Your task to perform on an android device: snooze an email in the gmail app Image 0: 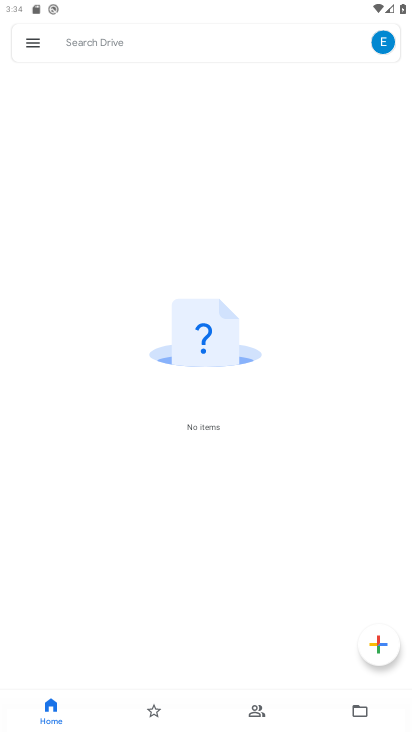
Step 0: press home button
Your task to perform on an android device: snooze an email in the gmail app Image 1: 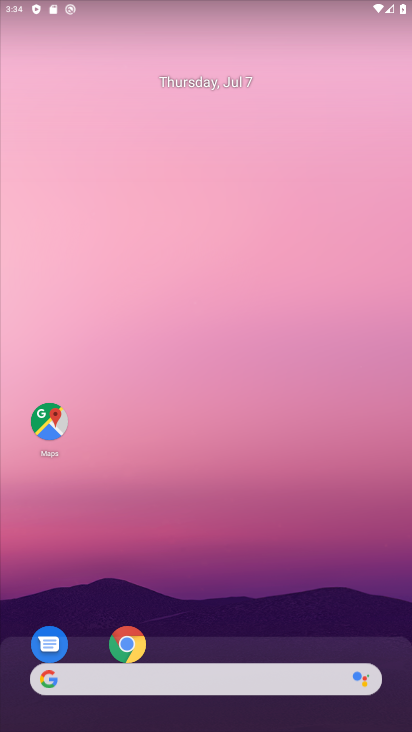
Step 1: drag from (281, 438) to (314, 271)
Your task to perform on an android device: snooze an email in the gmail app Image 2: 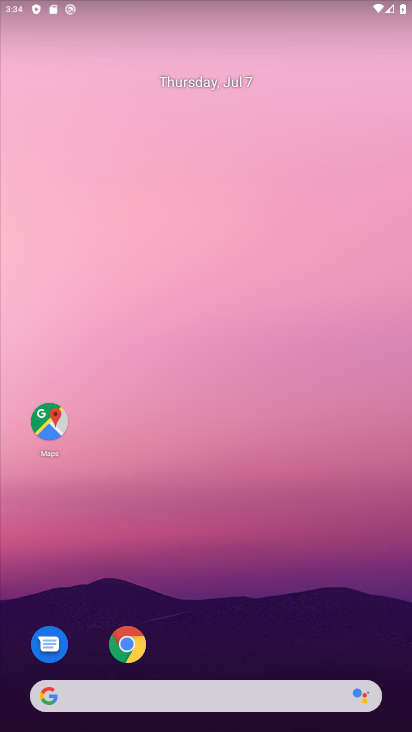
Step 2: drag from (231, 634) to (336, 118)
Your task to perform on an android device: snooze an email in the gmail app Image 3: 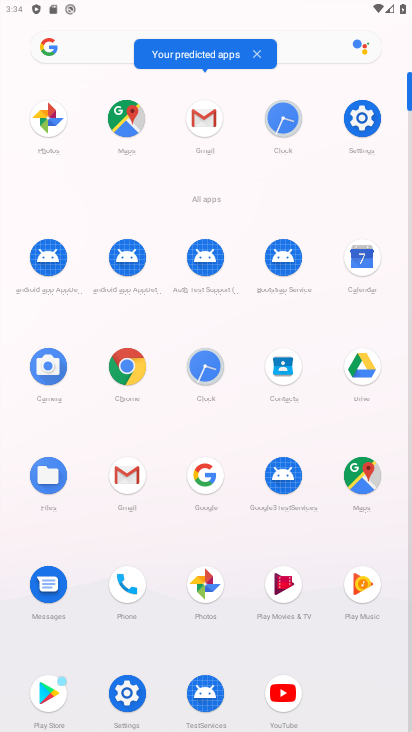
Step 3: click (134, 479)
Your task to perform on an android device: snooze an email in the gmail app Image 4: 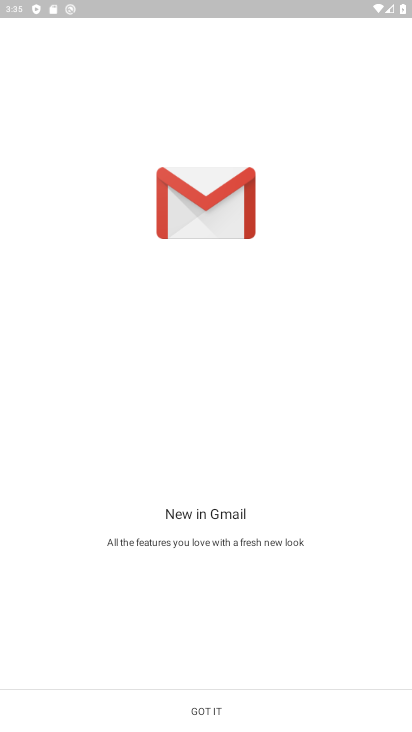
Step 4: click (231, 713)
Your task to perform on an android device: snooze an email in the gmail app Image 5: 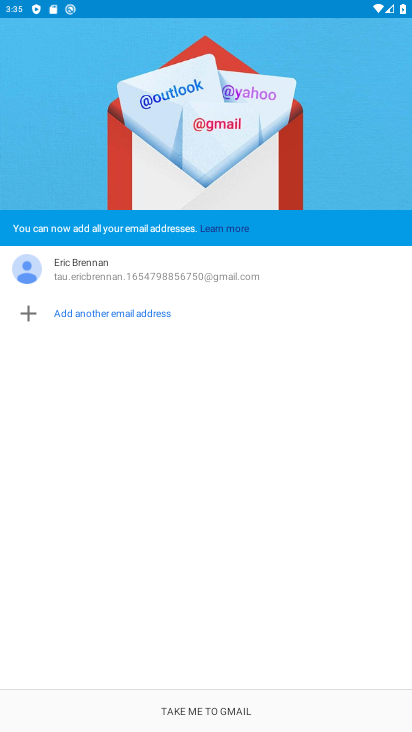
Step 5: click (231, 713)
Your task to perform on an android device: snooze an email in the gmail app Image 6: 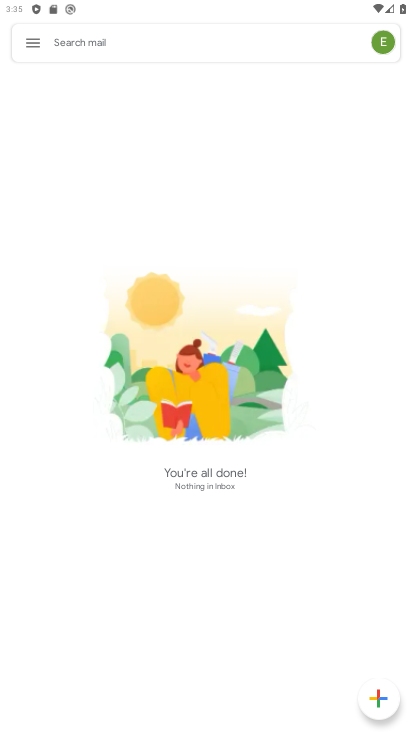
Step 6: task complete